Your task to perform on an android device: Open Google Chrome and open the bookmarks view Image 0: 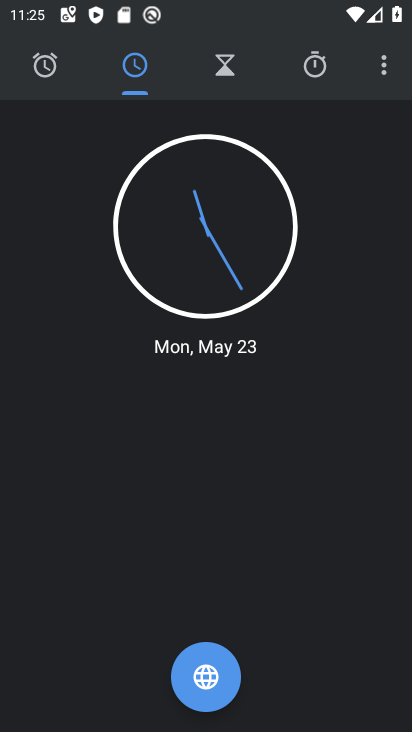
Step 0: press home button
Your task to perform on an android device: Open Google Chrome and open the bookmarks view Image 1: 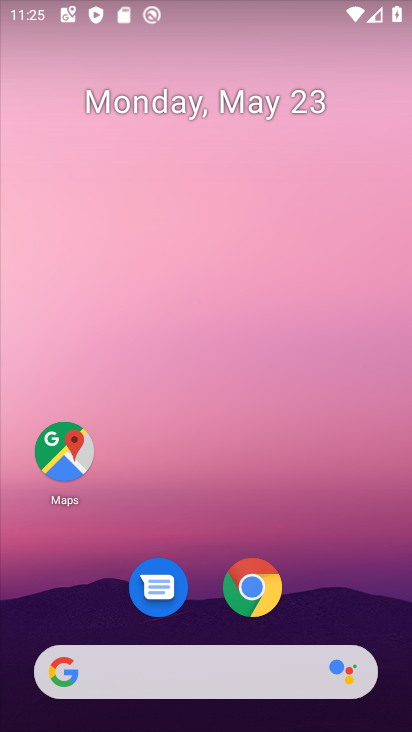
Step 1: click (263, 591)
Your task to perform on an android device: Open Google Chrome and open the bookmarks view Image 2: 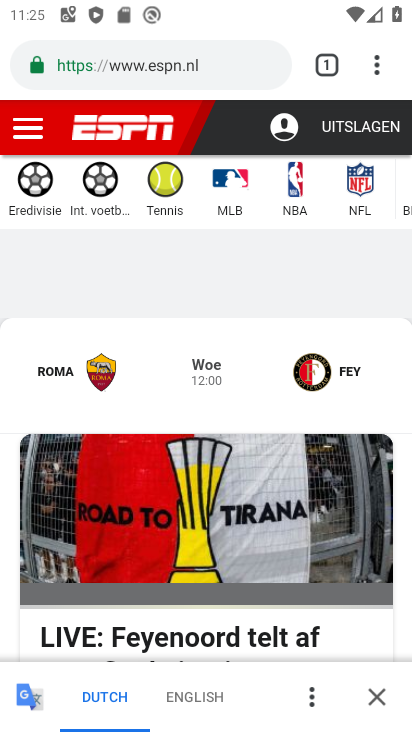
Step 2: click (385, 59)
Your task to perform on an android device: Open Google Chrome and open the bookmarks view Image 3: 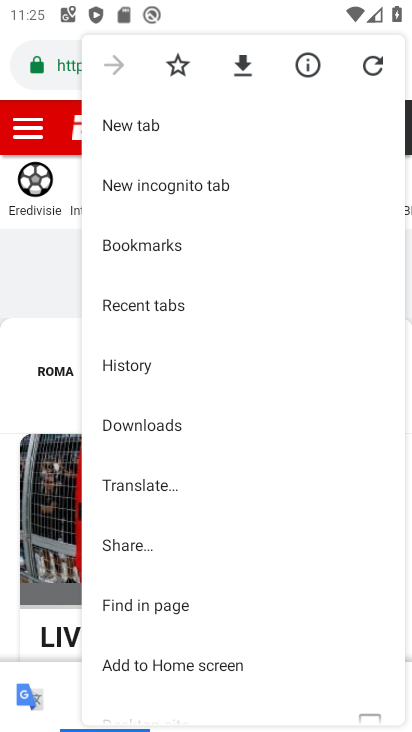
Step 3: click (293, 252)
Your task to perform on an android device: Open Google Chrome and open the bookmarks view Image 4: 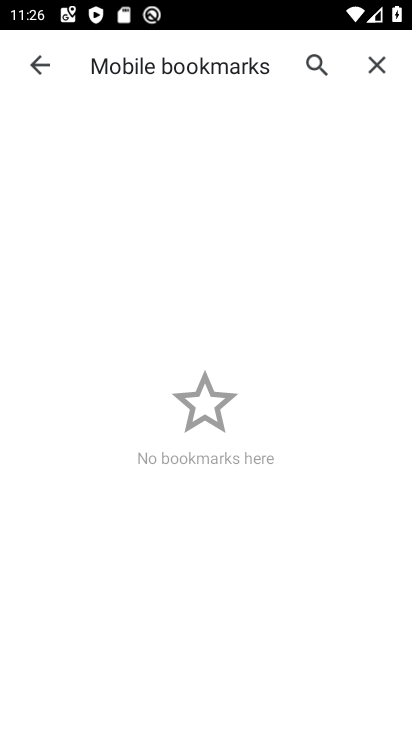
Step 4: task complete